Your task to perform on an android device: find photos in the google photos app Image 0: 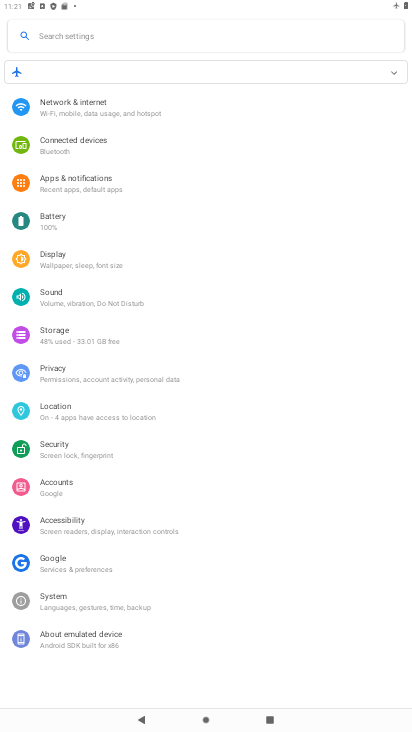
Step 0: press home button
Your task to perform on an android device: find photos in the google photos app Image 1: 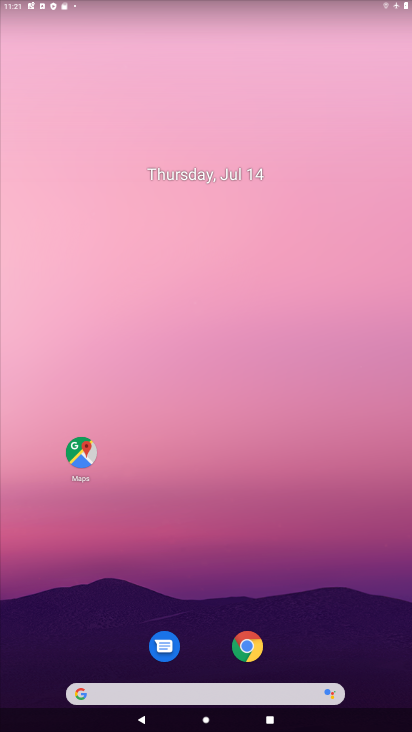
Step 1: drag from (193, 642) to (189, 212)
Your task to perform on an android device: find photos in the google photos app Image 2: 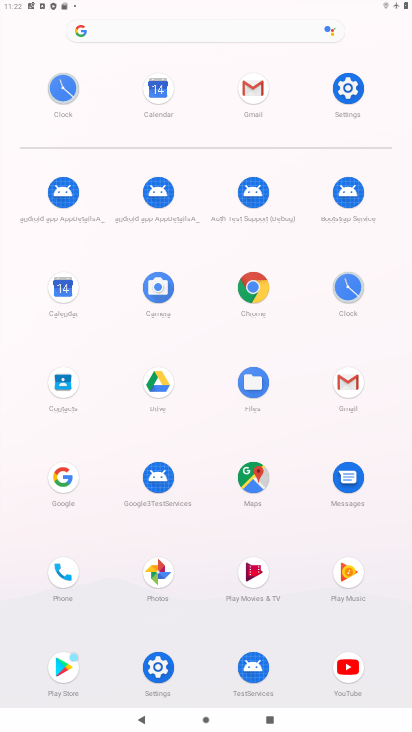
Step 2: click (166, 583)
Your task to perform on an android device: find photos in the google photos app Image 3: 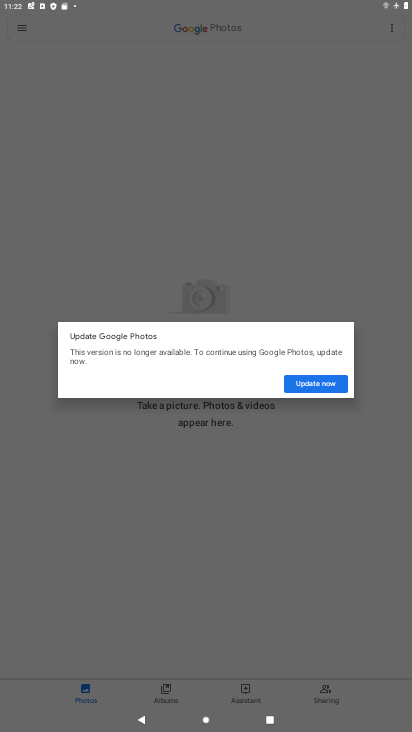
Step 3: click (292, 382)
Your task to perform on an android device: find photos in the google photos app Image 4: 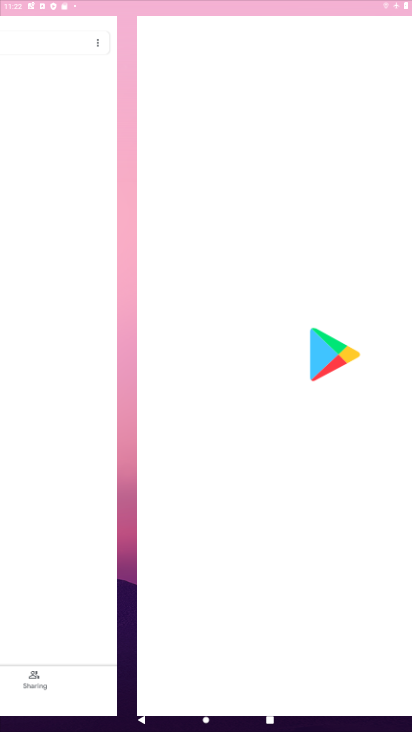
Step 4: click (174, 15)
Your task to perform on an android device: find photos in the google photos app Image 5: 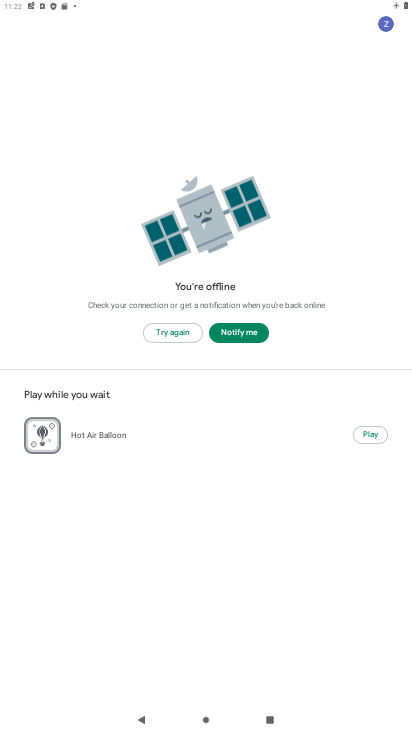
Step 5: task complete